Your task to perform on an android device: toggle airplane mode Image 0: 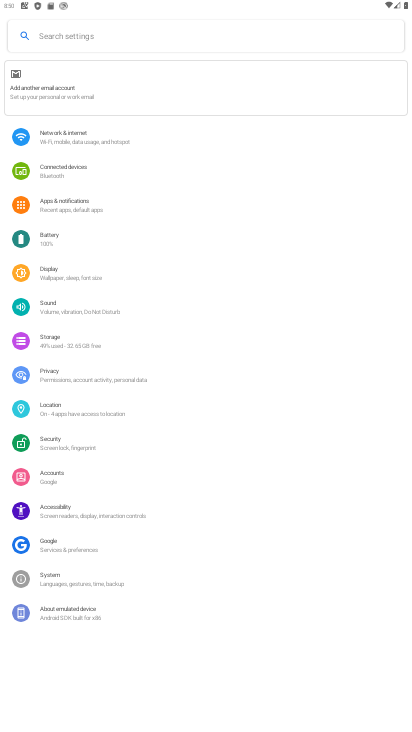
Step 0: drag from (137, 7) to (219, 582)
Your task to perform on an android device: toggle airplane mode Image 1: 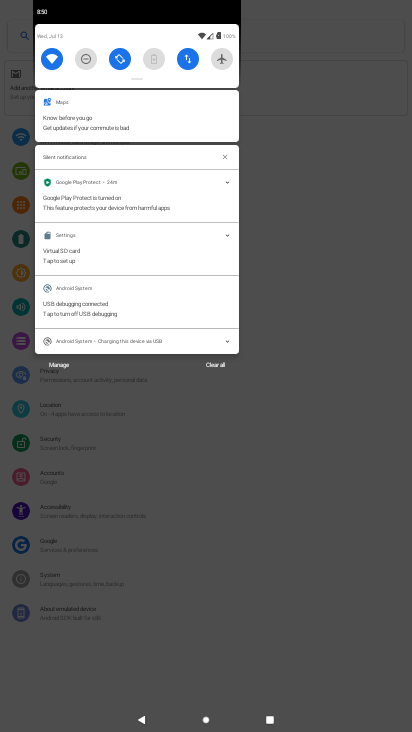
Step 1: click (223, 64)
Your task to perform on an android device: toggle airplane mode Image 2: 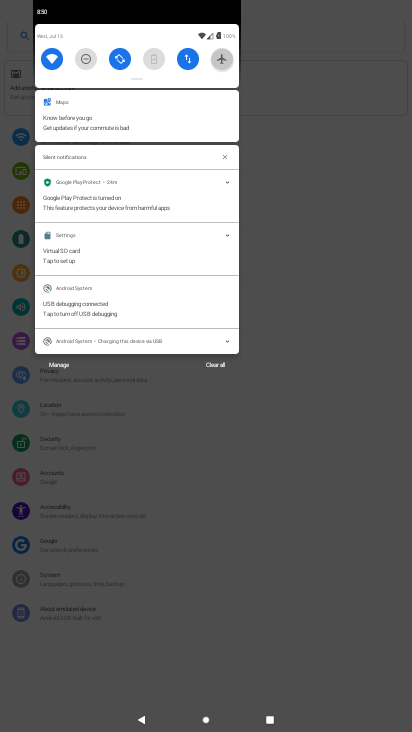
Step 2: click (223, 64)
Your task to perform on an android device: toggle airplane mode Image 3: 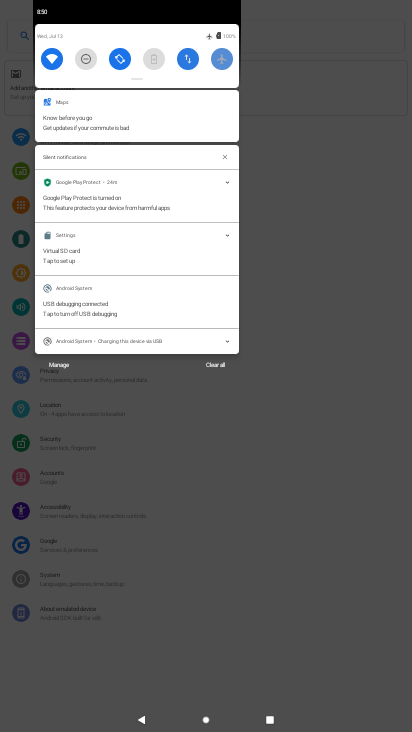
Step 3: click (223, 64)
Your task to perform on an android device: toggle airplane mode Image 4: 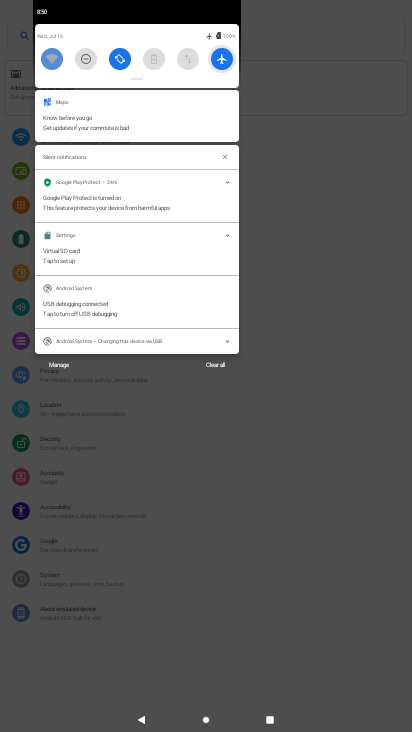
Step 4: click (223, 64)
Your task to perform on an android device: toggle airplane mode Image 5: 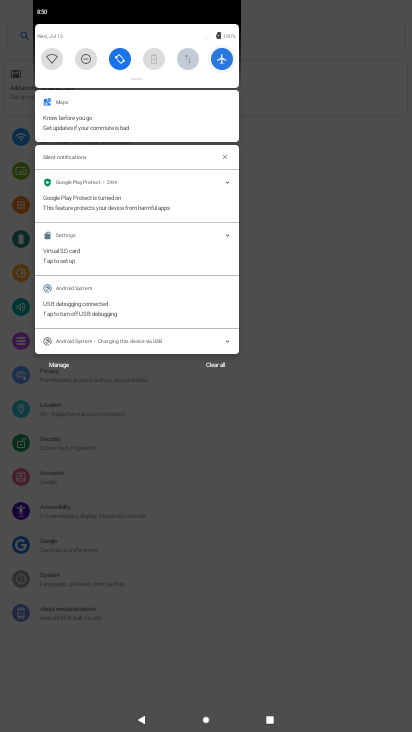
Step 5: click (223, 64)
Your task to perform on an android device: toggle airplane mode Image 6: 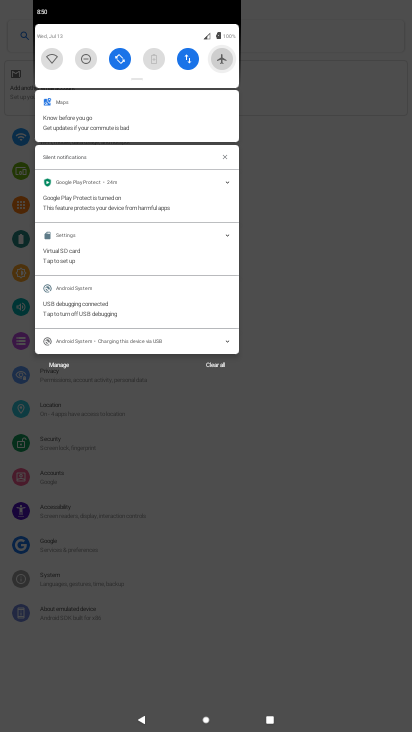
Step 6: click (223, 64)
Your task to perform on an android device: toggle airplane mode Image 7: 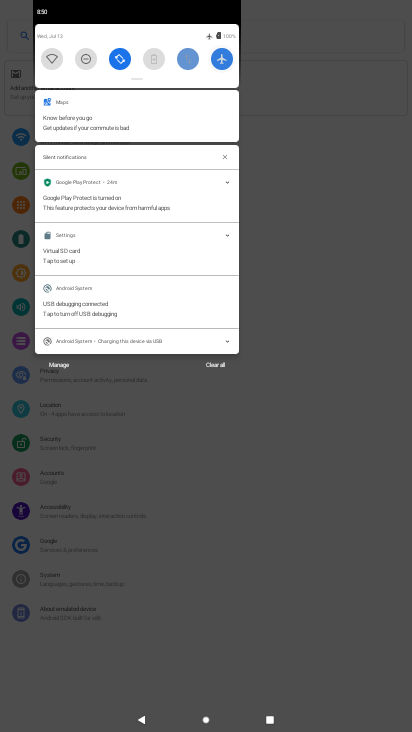
Step 7: click (223, 64)
Your task to perform on an android device: toggle airplane mode Image 8: 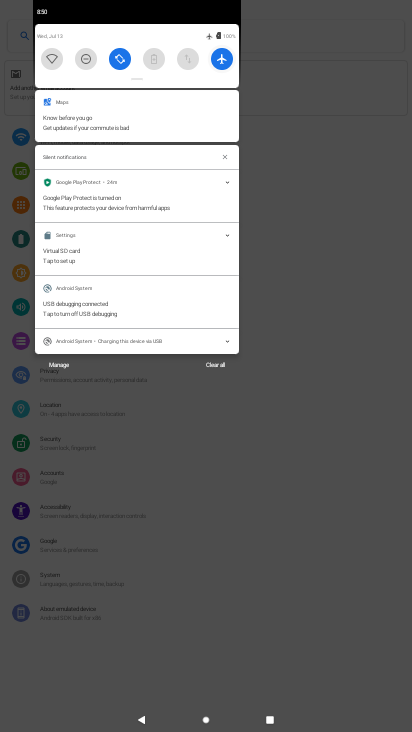
Step 8: click (223, 64)
Your task to perform on an android device: toggle airplane mode Image 9: 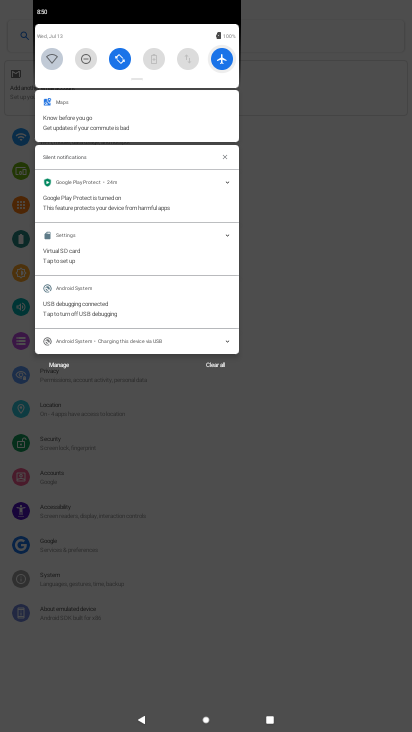
Step 9: click (223, 64)
Your task to perform on an android device: toggle airplane mode Image 10: 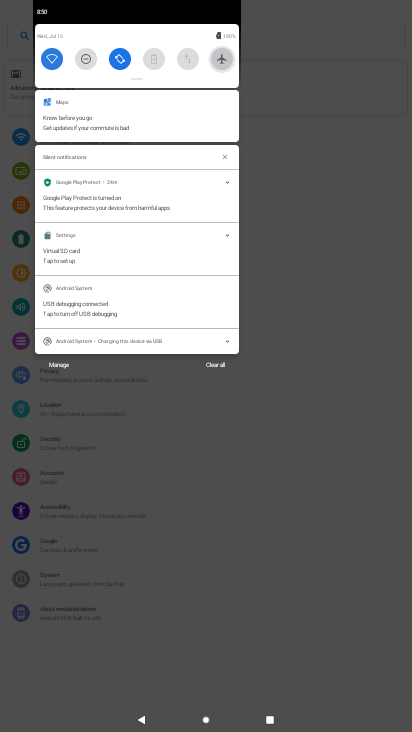
Step 10: click (223, 64)
Your task to perform on an android device: toggle airplane mode Image 11: 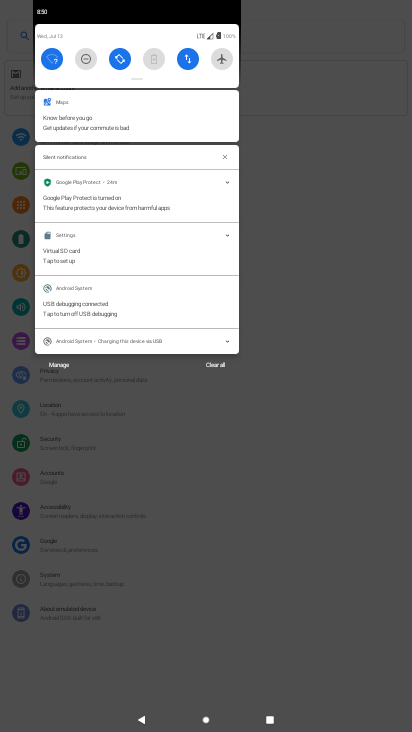
Step 11: task complete